Your task to perform on an android device: open app "DuckDuckGo Privacy Browser" Image 0: 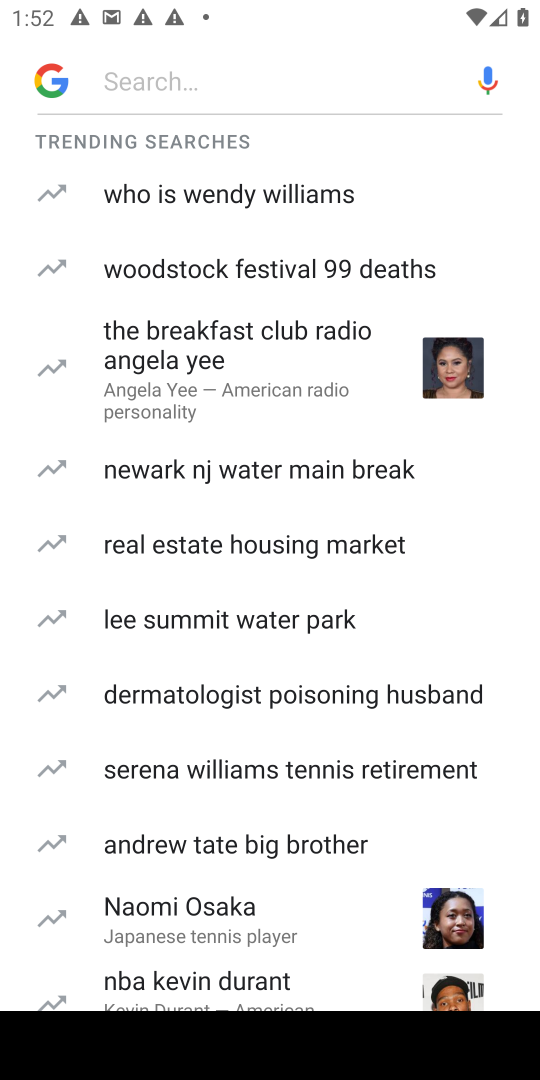
Step 0: press home button
Your task to perform on an android device: open app "DuckDuckGo Privacy Browser" Image 1: 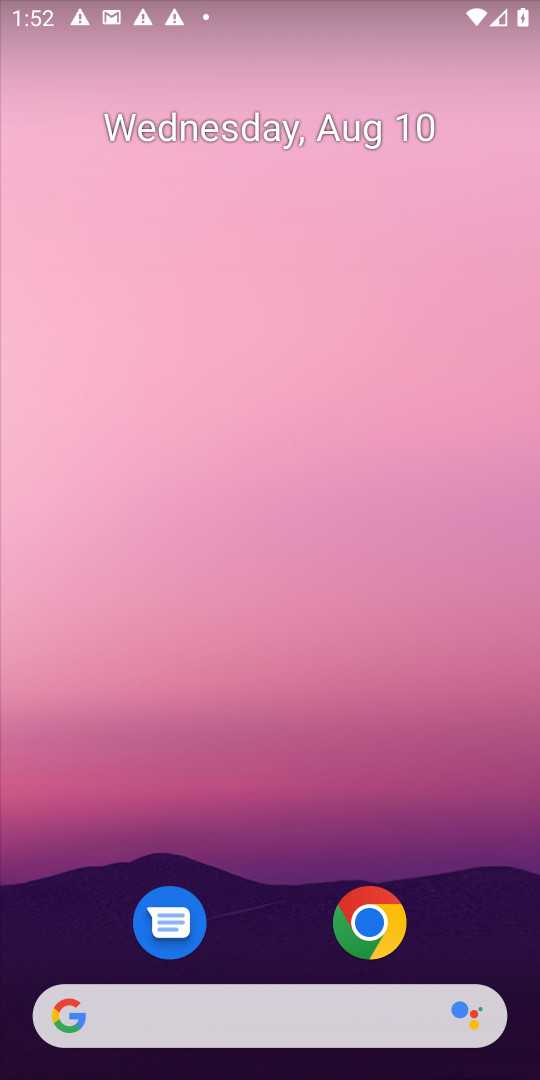
Step 1: drag from (242, 725) to (288, 72)
Your task to perform on an android device: open app "DuckDuckGo Privacy Browser" Image 2: 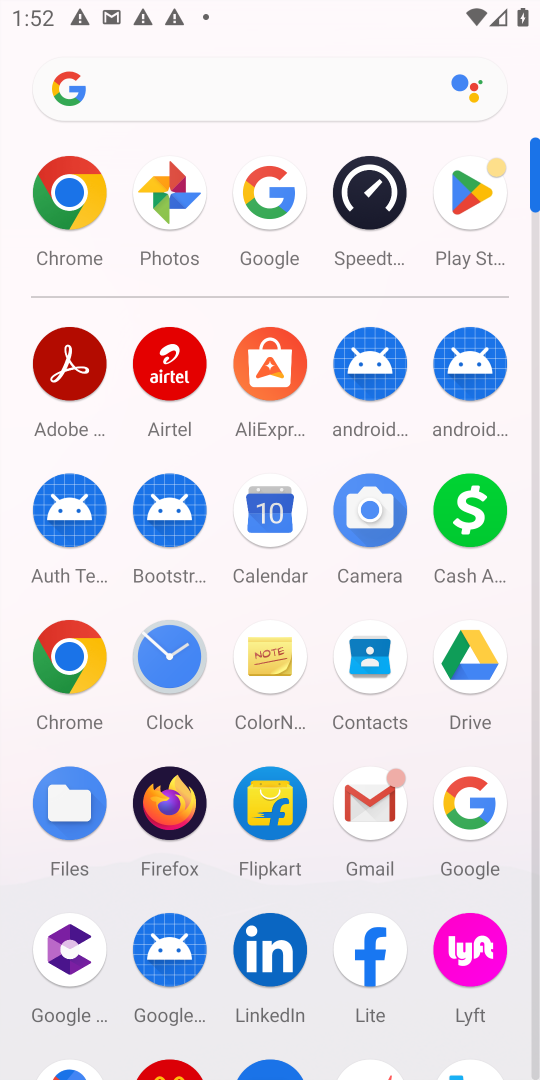
Step 2: click (468, 185)
Your task to perform on an android device: open app "DuckDuckGo Privacy Browser" Image 3: 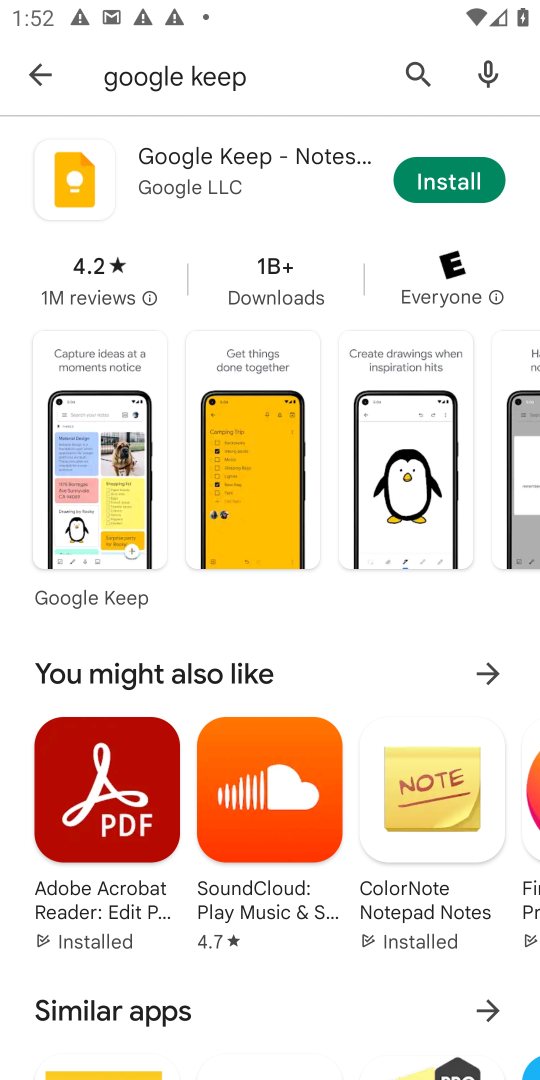
Step 3: click (43, 77)
Your task to perform on an android device: open app "DuckDuckGo Privacy Browser" Image 4: 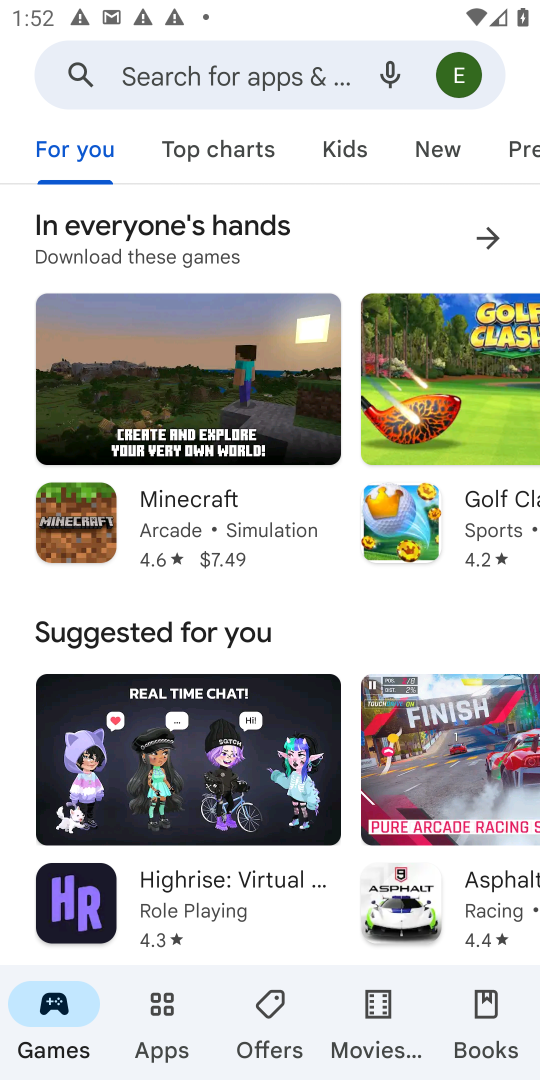
Step 4: click (147, 84)
Your task to perform on an android device: open app "DuckDuckGo Privacy Browser" Image 5: 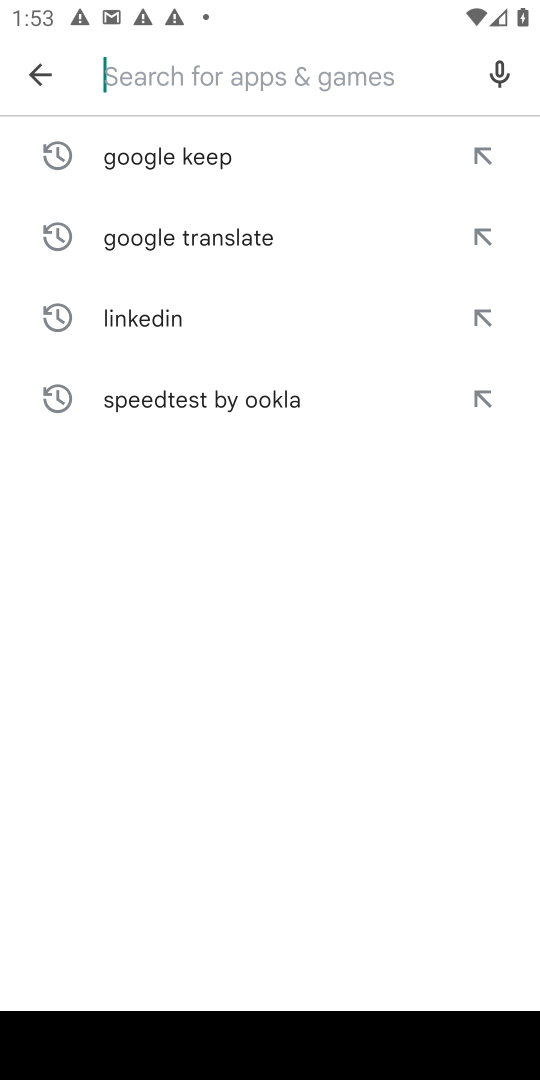
Step 5: type "DuckDuckGo Privacy Browser"
Your task to perform on an android device: open app "DuckDuckGo Privacy Browser" Image 6: 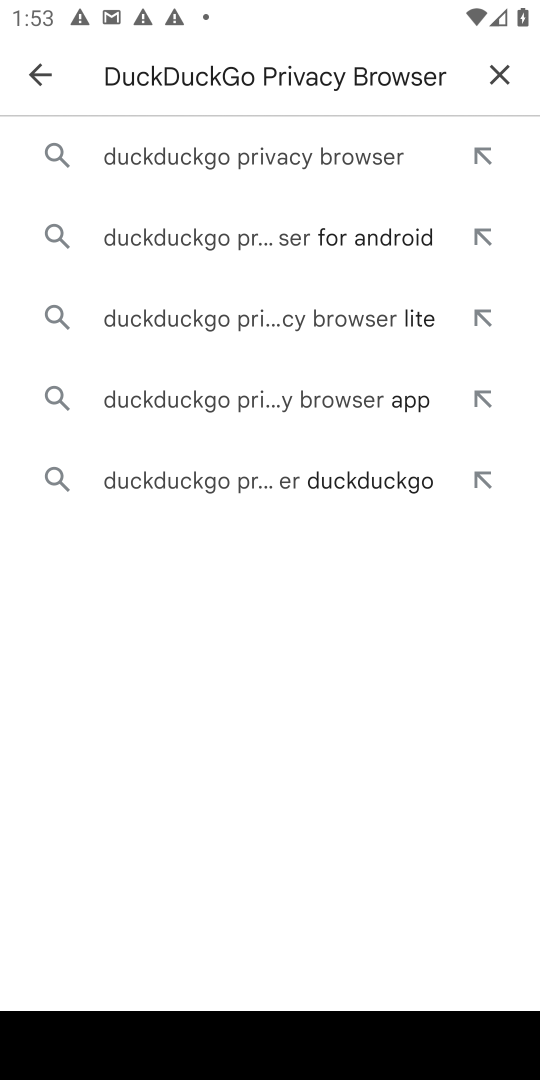
Step 6: click (315, 167)
Your task to perform on an android device: open app "DuckDuckGo Privacy Browser" Image 7: 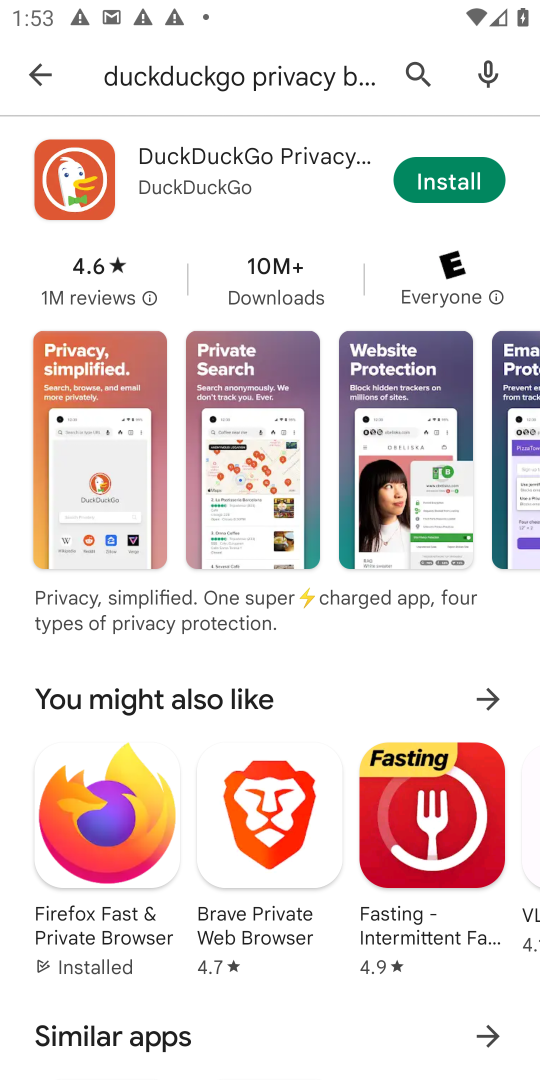
Step 7: click (441, 186)
Your task to perform on an android device: open app "DuckDuckGo Privacy Browser" Image 8: 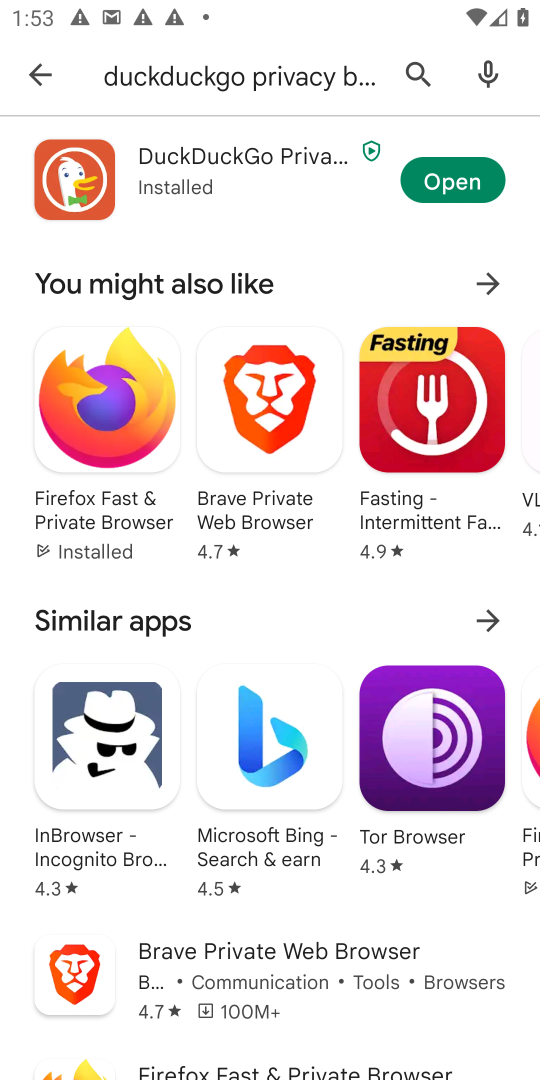
Step 8: click (441, 186)
Your task to perform on an android device: open app "DuckDuckGo Privacy Browser" Image 9: 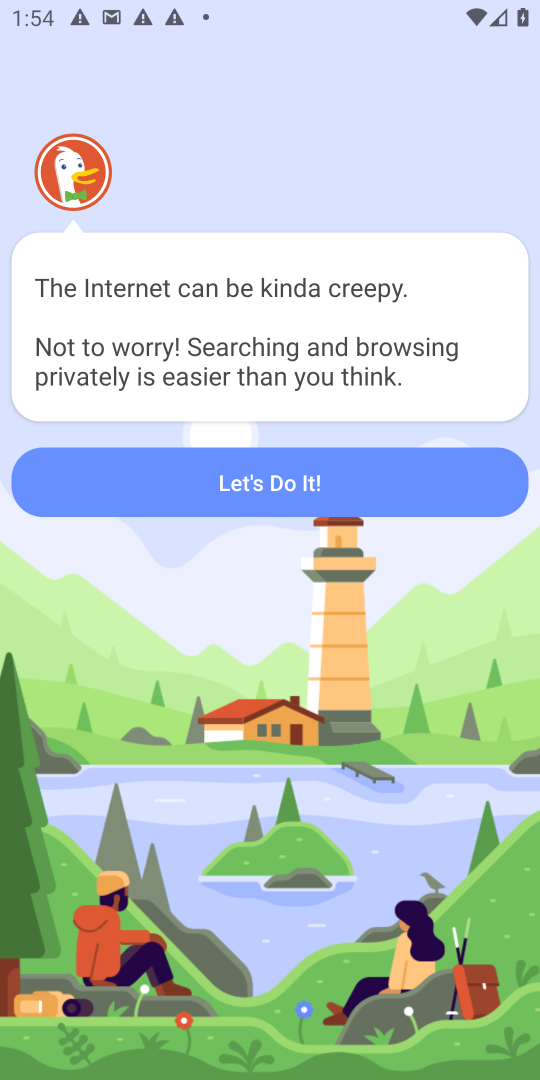
Step 9: task complete